Your task to perform on an android device: turn off notifications in google photos Image 0: 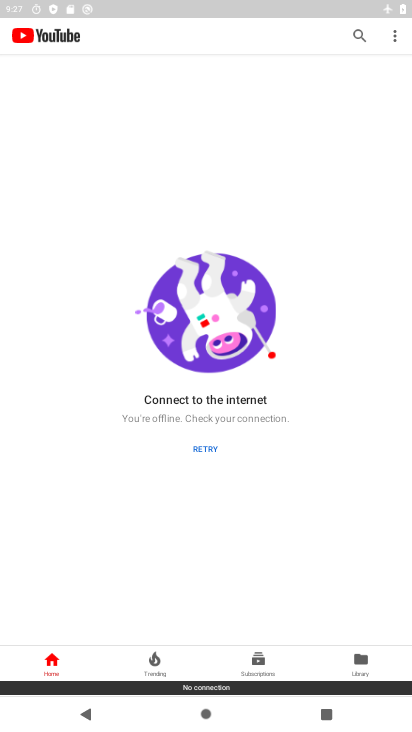
Step 0: press home button
Your task to perform on an android device: turn off notifications in google photos Image 1: 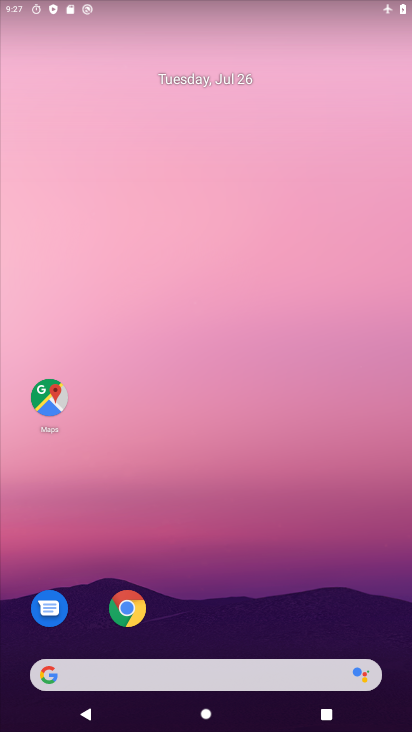
Step 1: drag from (193, 588) to (199, 7)
Your task to perform on an android device: turn off notifications in google photos Image 2: 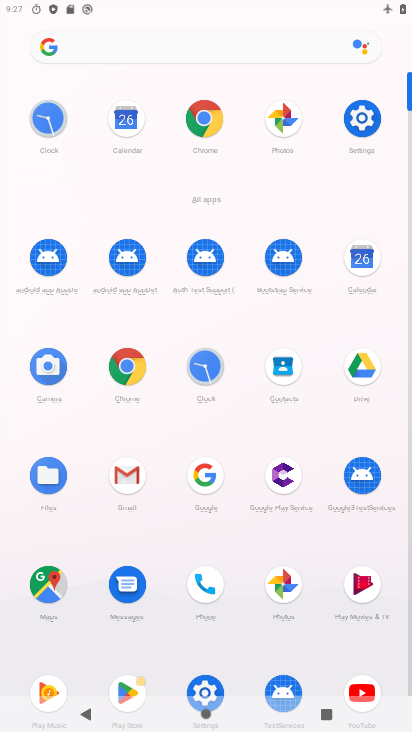
Step 2: click (271, 124)
Your task to perform on an android device: turn off notifications in google photos Image 3: 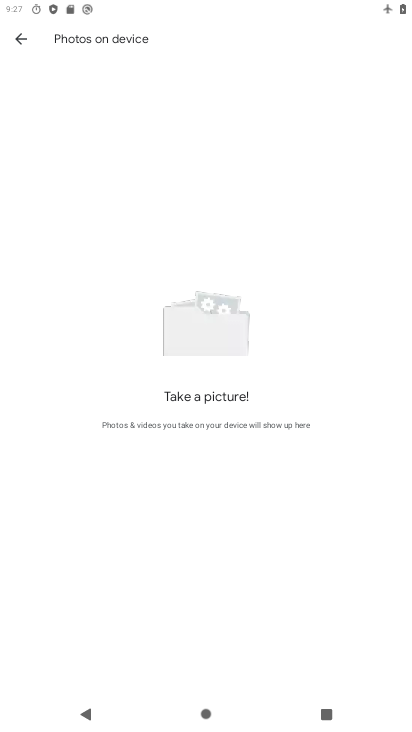
Step 3: click (21, 29)
Your task to perform on an android device: turn off notifications in google photos Image 4: 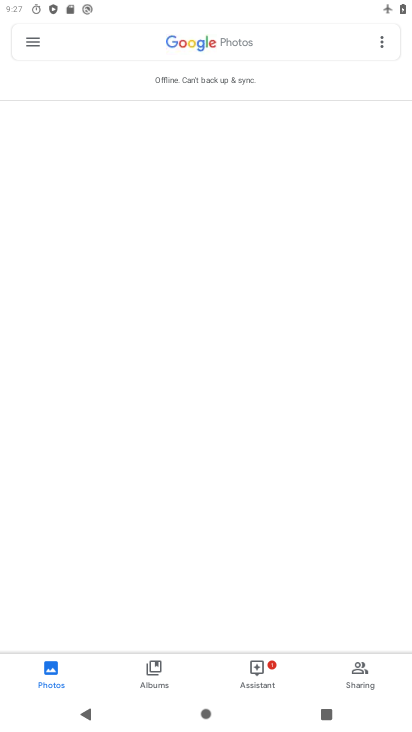
Step 4: click (28, 30)
Your task to perform on an android device: turn off notifications in google photos Image 5: 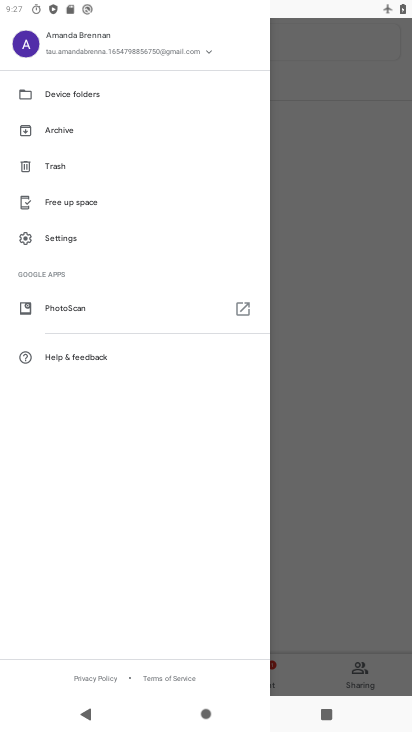
Step 5: click (61, 228)
Your task to perform on an android device: turn off notifications in google photos Image 6: 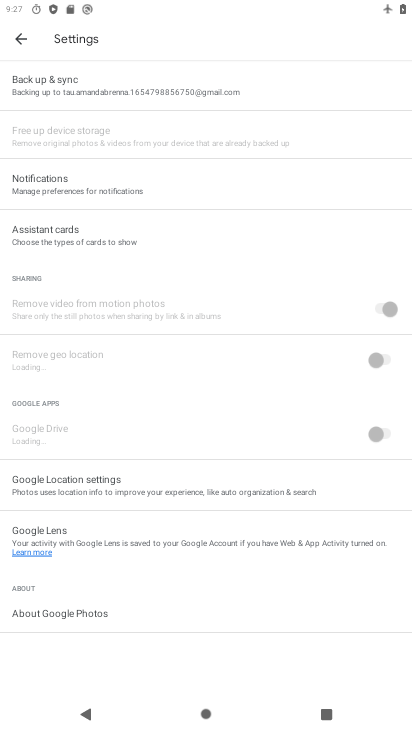
Step 6: click (56, 191)
Your task to perform on an android device: turn off notifications in google photos Image 7: 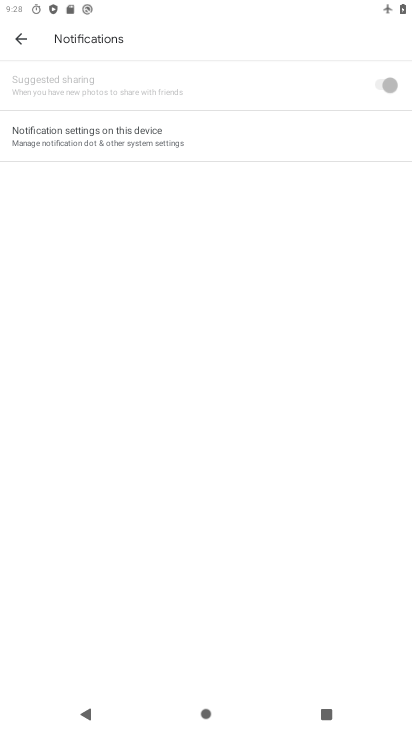
Step 7: click (54, 131)
Your task to perform on an android device: turn off notifications in google photos Image 8: 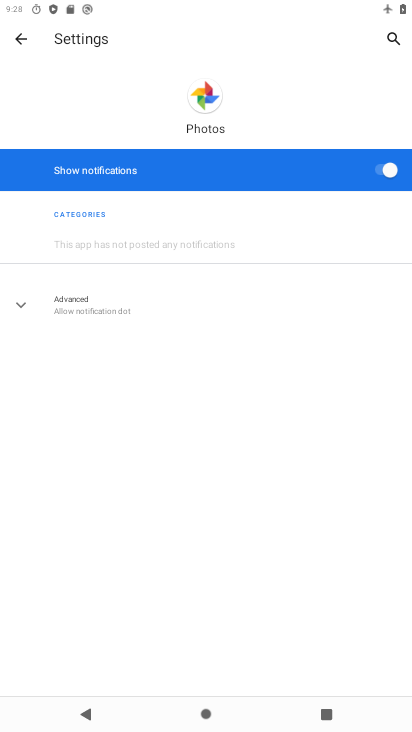
Step 8: click (375, 168)
Your task to perform on an android device: turn off notifications in google photos Image 9: 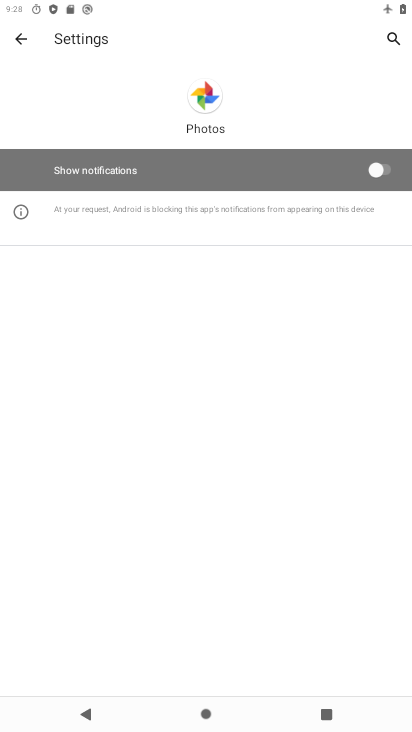
Step 9: task complete